Your task to perform on an android device: turn off priority inbox in the gmail app Image 0: 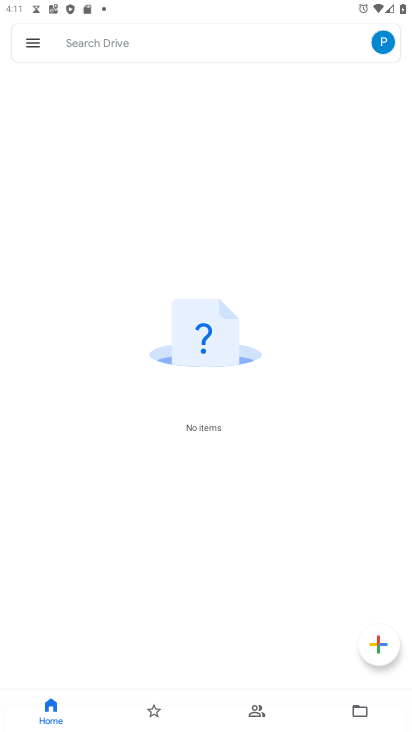
Step 0: press home button
Your task to perform on an android device: turn off priority inbox in the gmail app Image 1: 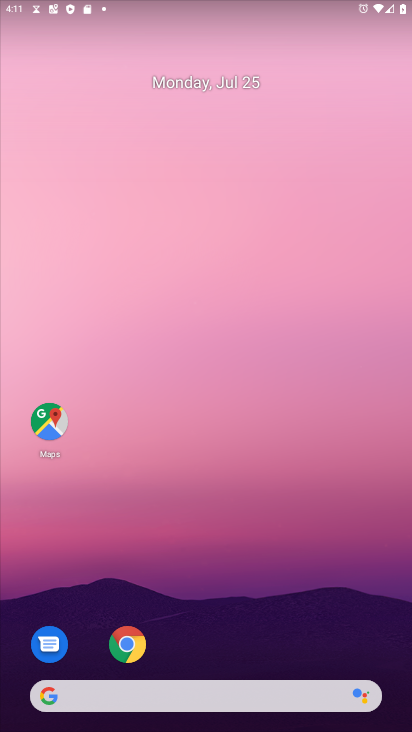
Step 1: drag from (279, 637) to (273, 116)
Your task to perform on an android device: turn off priority inbox in the gmail app Image 2: 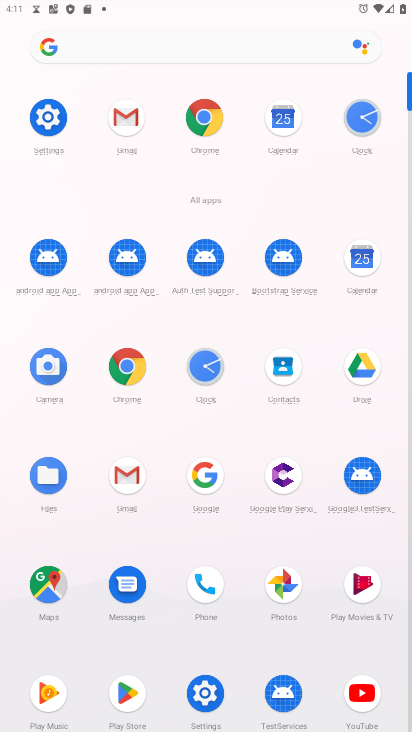
Step 2: click (127, 117)
Your task to perform on an android device: turn off priority inbox in the gmail app Image 3: 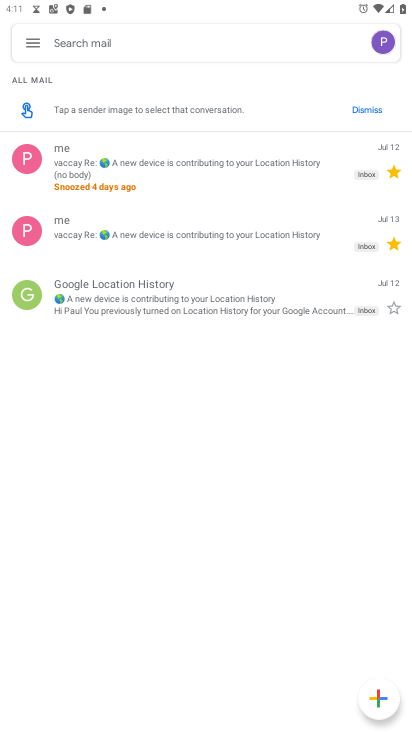
Step 3: click (24, 39)
Your task to perform on an android device: turn off priority inbox in the gmail app Image 4: 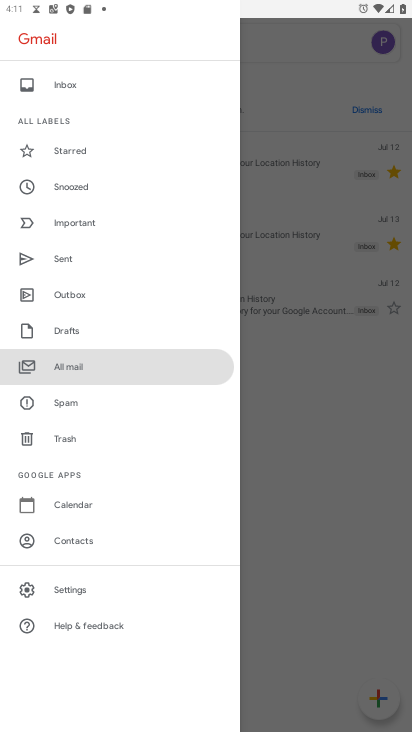
Step 4: click (69, 586)
Your task to perform on an android device: turn off priority inbox in the gmail app Image 5: 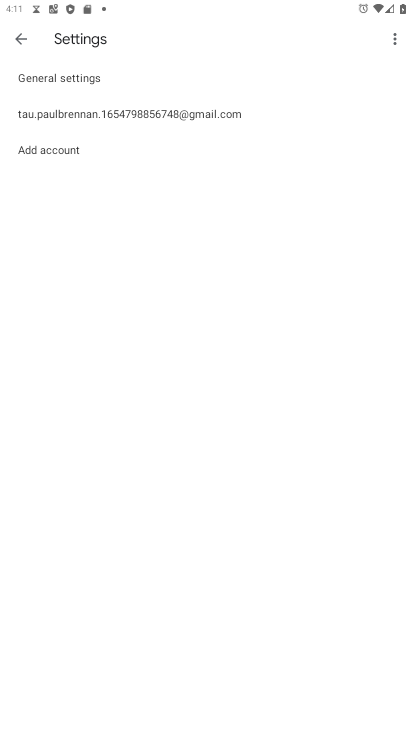
Step 5: click (60, 113)
Your task to perform on an android device: turn off priority inbox in the gmail app Image 6: 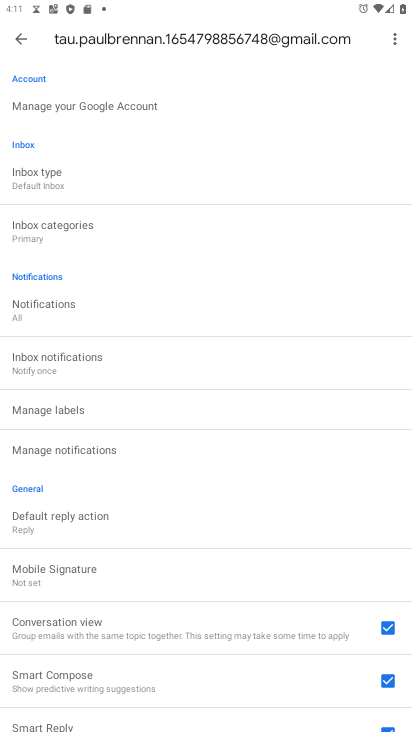
Step 6: click (33, 180)
Your task to perform on an android device: turn off priority inbox in the gmail app Image 7: 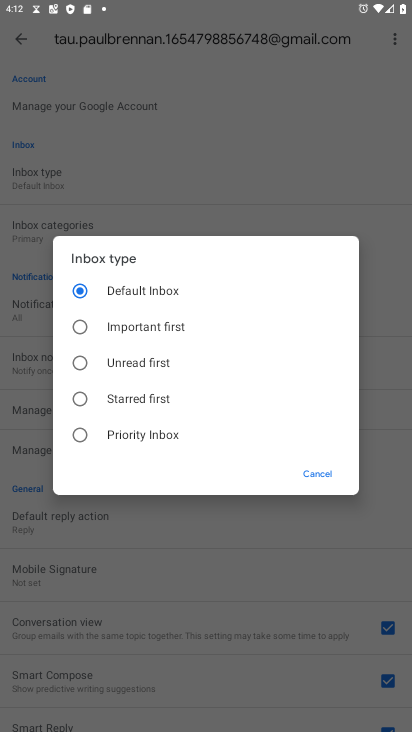
Step 7: task complete